Your task to perform on an android device: turn off data saver in the chrome app Image 0: 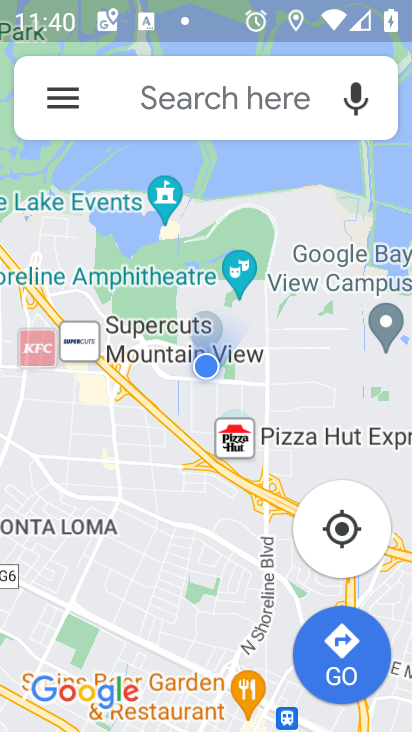
Step 0: press home button
Your task to perform on an android device: turn off data saver in the chrome app Image 1: 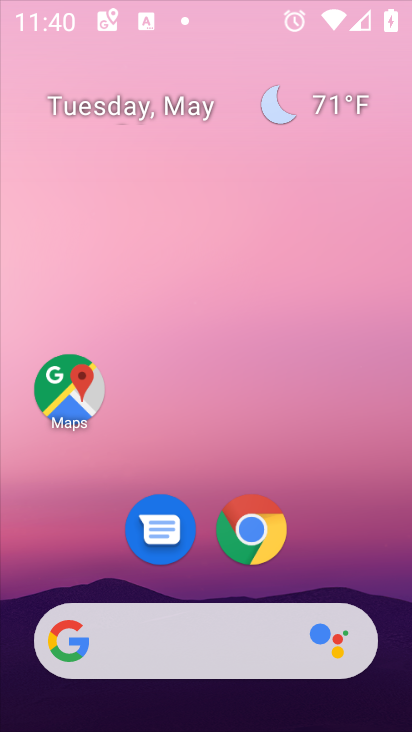
Step 1: drag from (210, 702) to (254, 193)
Your task to perform on an android device: turn off data saver in the chrome app Image 2: 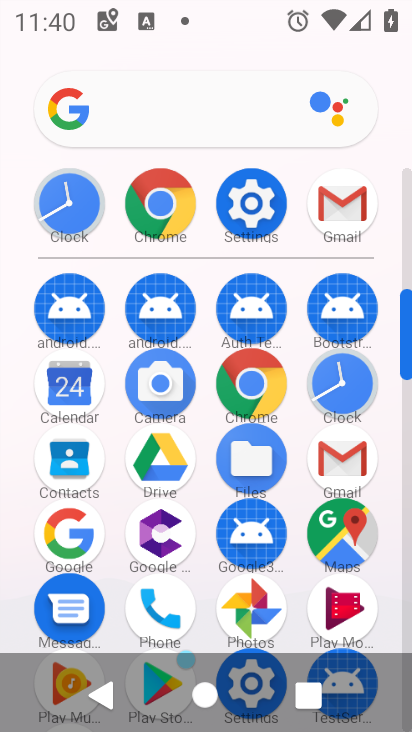
Step 2: click (170, 230)
Your task to perform on an android device: turn off data saver in the chrome app Image 3: 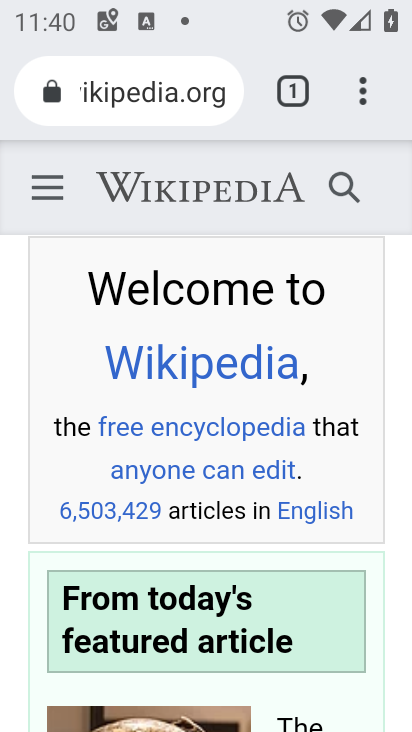
Step 3: click (373, 92)
Your task to perform on an android device: turn off data saver in the chrome app Image 4: 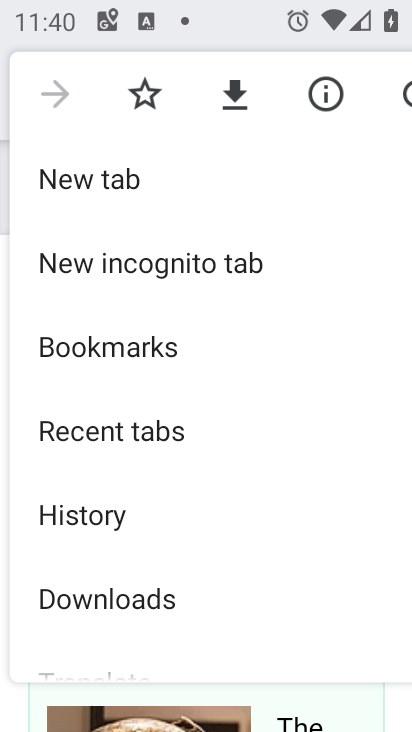
Step 4: drag from (133, 483) to (207, 94)
Your task to perform on an android device: turn off data saver in the chrome app Image 5: 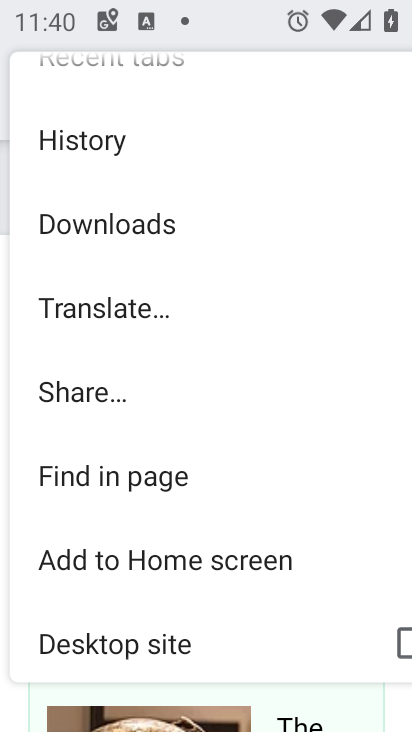
Step 5: drag from (86, 525) to (87, 75)
Your task to perform on an android device: turn off data saver in the chrome app Image 6: 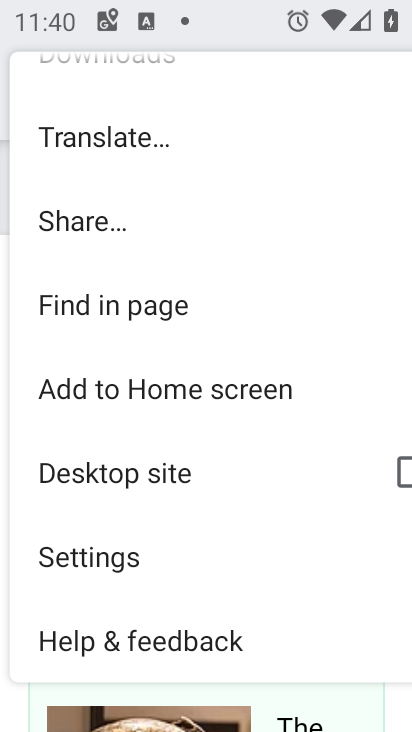
Step 6: click (157, 551)
Your task to perform on an android device: turn off data saver in the chrome app Image 7: 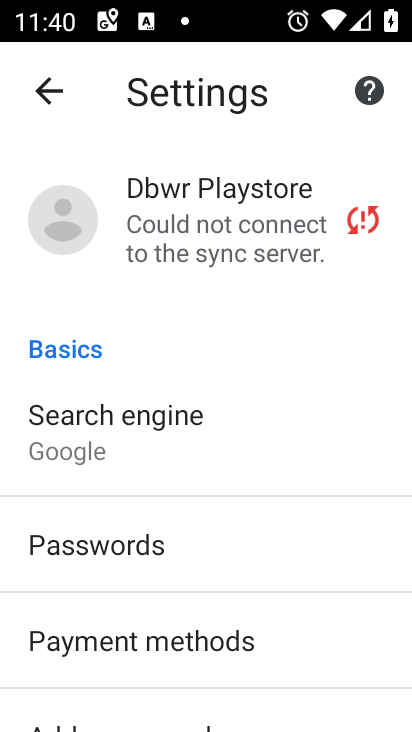
Step 7: drag from (157, 556) to (109, 205)
Your task to perform on an android device: turn off data saver in the chrome app Image 8: 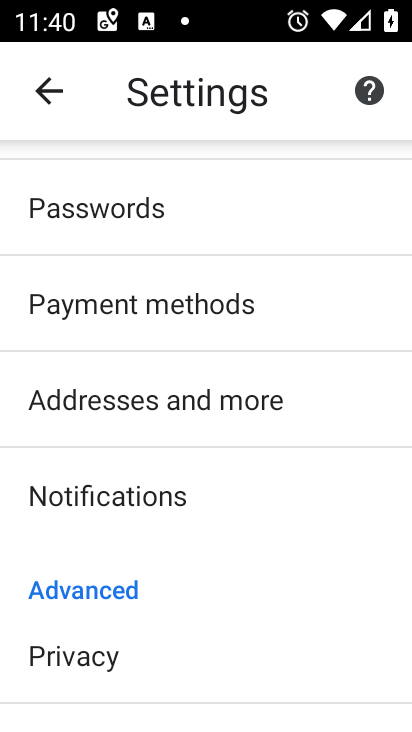
Step 8: drag from (172, 534) to (158, 327)
Your task to perform on an android device: turn off data saver in the chrome app Image 9: 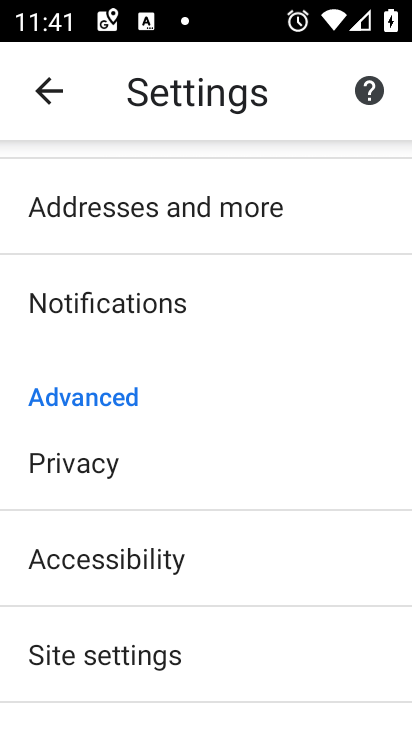
Step 9: drag from (135, 639) to (108, 255)
Your task to perform on an android device: turn off data saver in the chrome app Image 10: 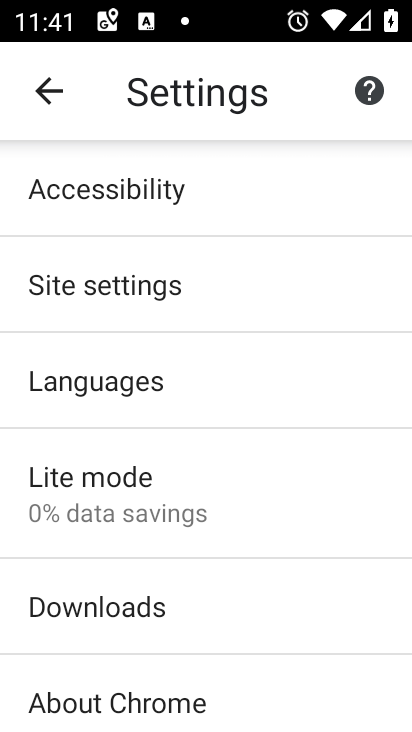
Step 10: click (169, 500)
Your task to perform on an android device: turn off data saver in the chrome app Image 11: 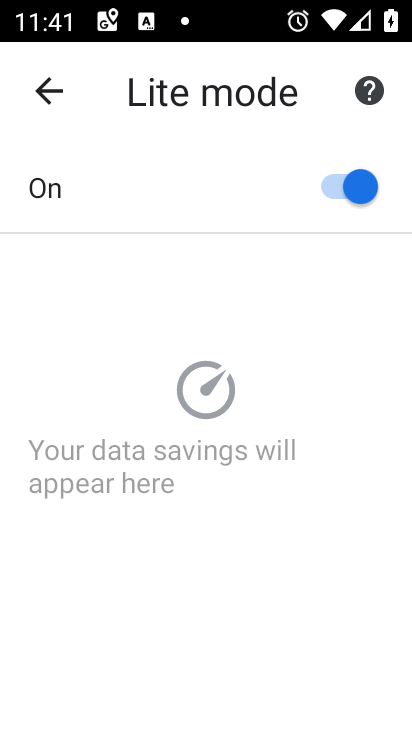
Step 11: click (326, 184)
Your task to perform on an android device: turn off data saver in the chrome app Image 12: 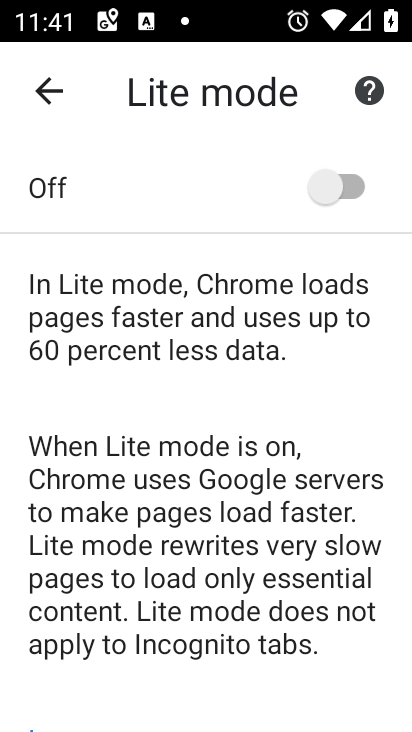
Step 12: task complete